Your task to perform on an android device: Go to Wikipedia Image 0: 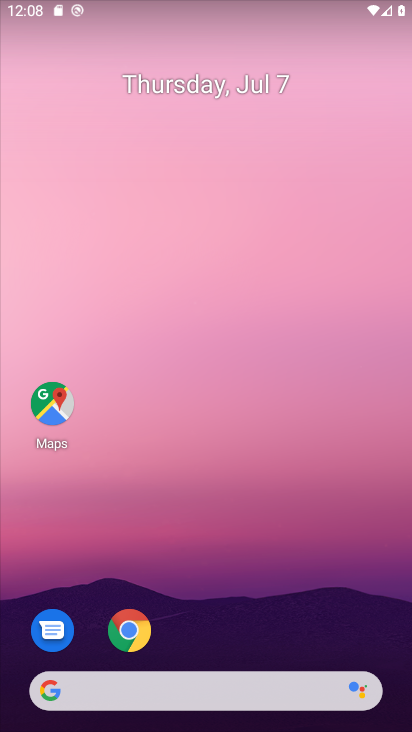
Step 0: drag from (223, 598) to (220, 305)
Your task to perform on an android device: Go to Wikipedia Image 1: 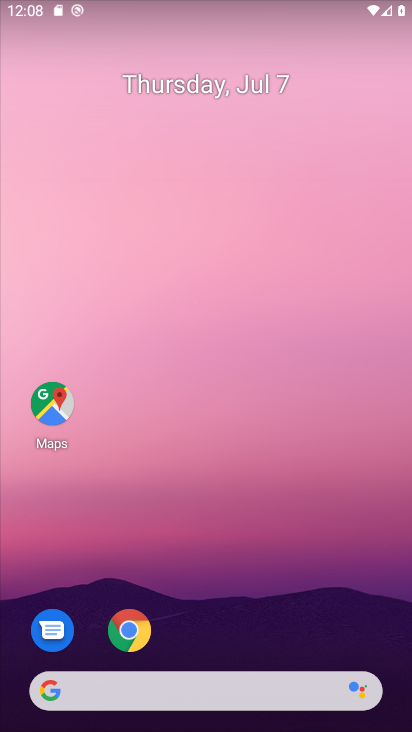
Step 1: drag from (228, 631) to (227, 275)
Your task to perform on an android device: Go to Wikipedia Image 2: 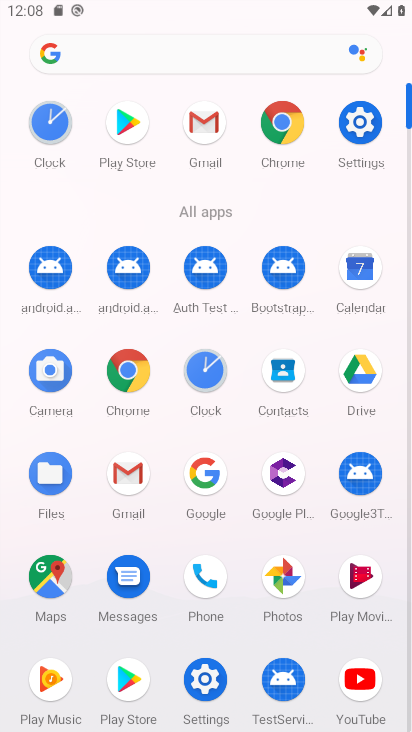
Step 2: click (268, 113)
Your task to perform on an android device: Go to Wikipedia Image 3: 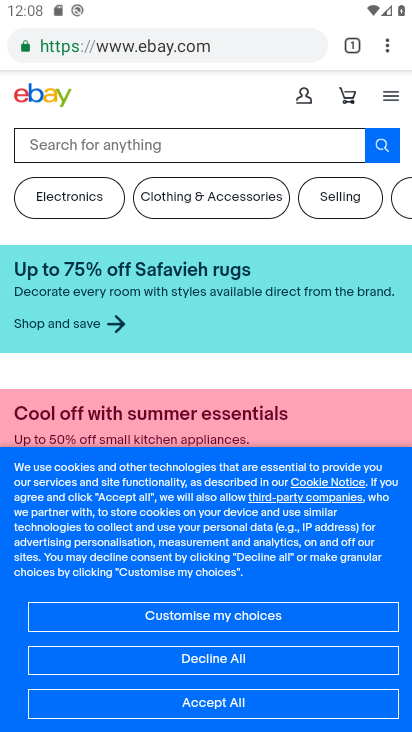
Step 3: click (382, 46)
Your task to perform on an android device: Go to Wikipedia Image 4: 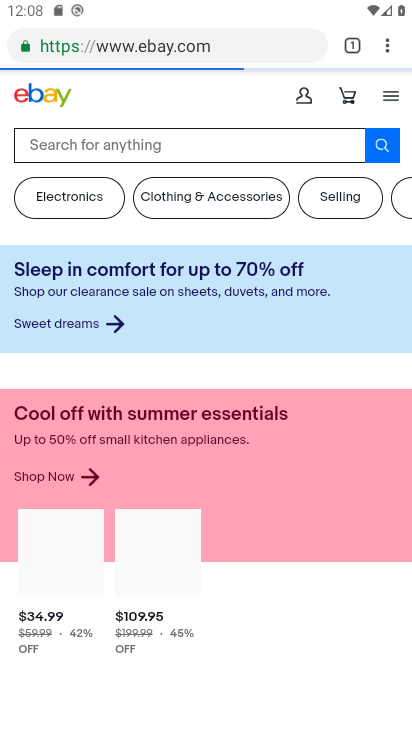
Step 4: click (378, 42)
Your task to perform on an android device: Go to Wikipedia Image 5: 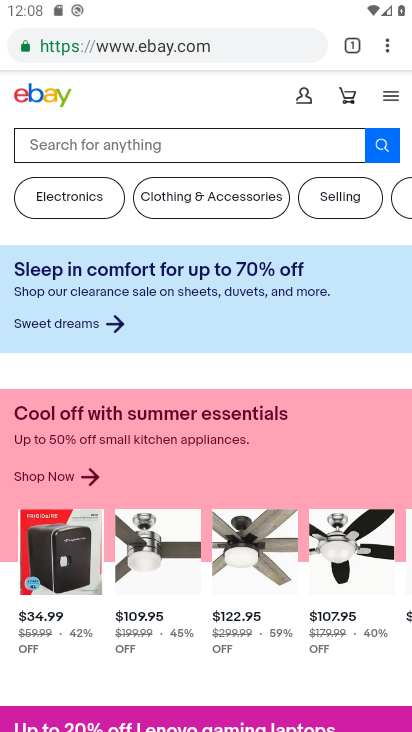
Step 5: click (394, 53)
Your task to perform on an android device: Go to Wikipedia Image 6: 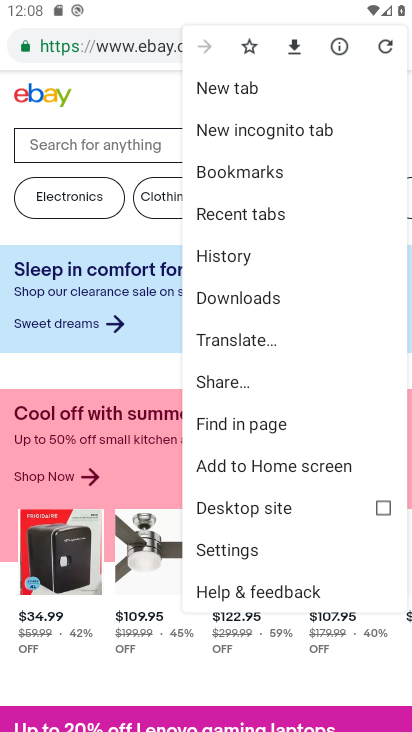
Step 6: click (280, 80)
Your task to perform on an android device: Go to Wikipedia Image 7: 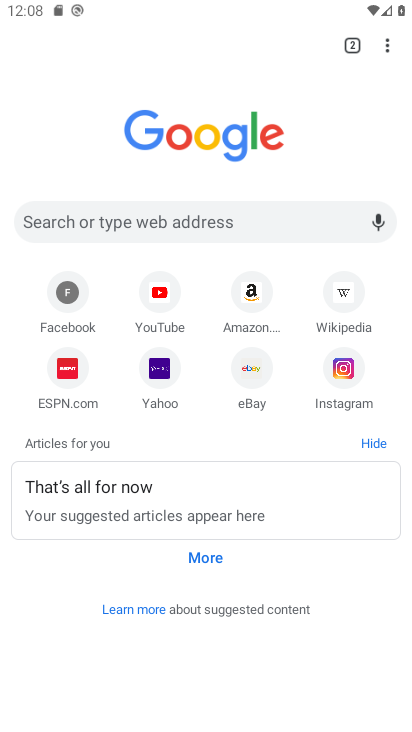
Step 7: click (343, 292)
Your task to perform on an android device: Go to Wikipedia Image 8: 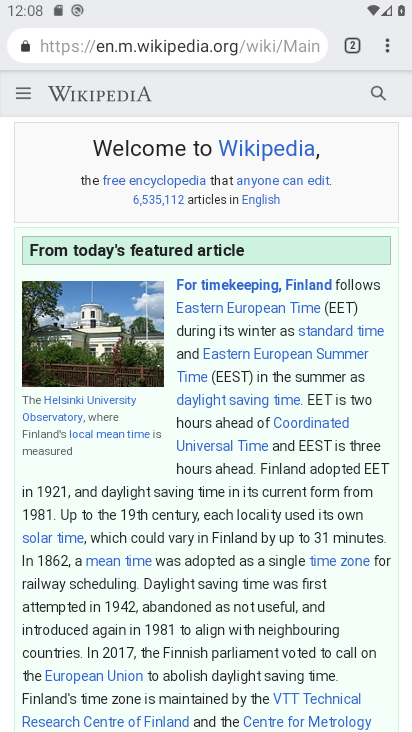
Step 8: task complete